Your task to perform on an android device: Open Google Maps and go to "Timeline" Image 0: 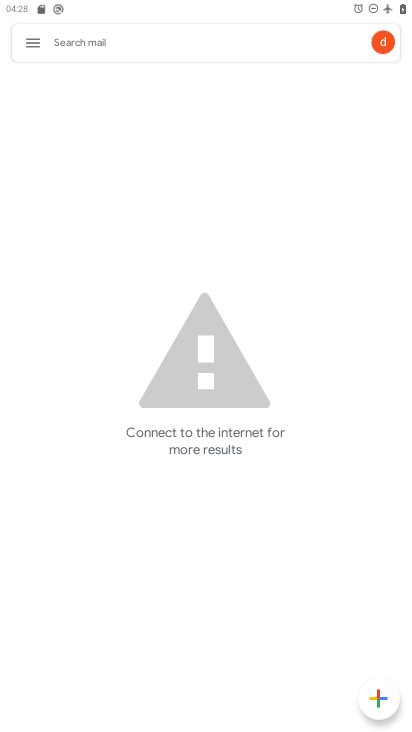
Step 0: press home button
Your task to perform on an android device: Open Google Maps and go to "Timeline" Image 1: 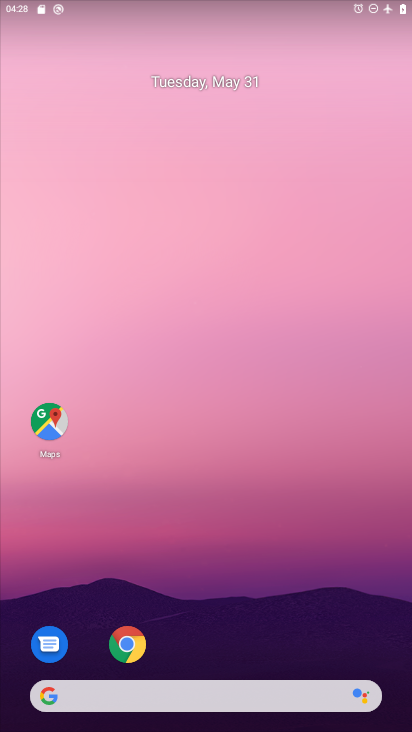
Step 1: click (46, 413)
Your task to perform on an android device: Open Google Maps and go to "Timeline" Image 2: 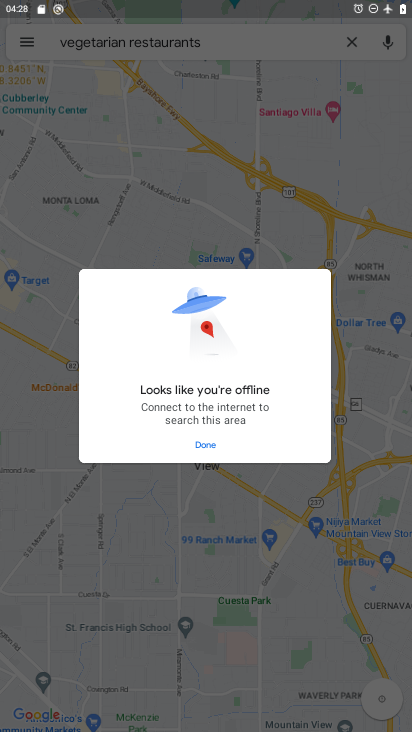
Step 2: click (209, 433)
Your task to perform on an android device: Open Google Maps and go to "Timeline" Image 3: 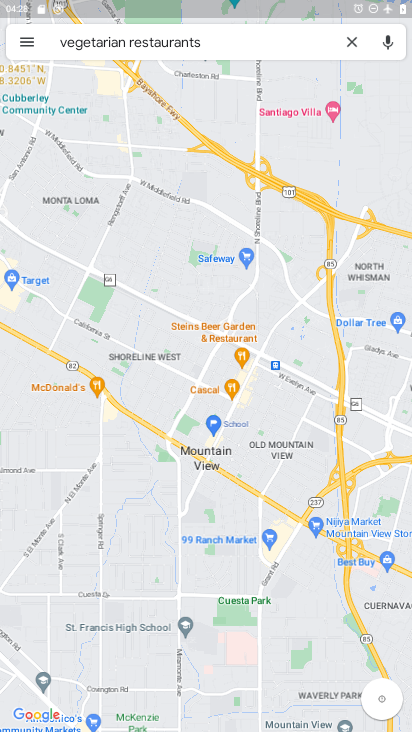
Step 3: click (20, 46)
Your task to perform on an android device: Open Google Maps and go to "Timeline" Image 4: 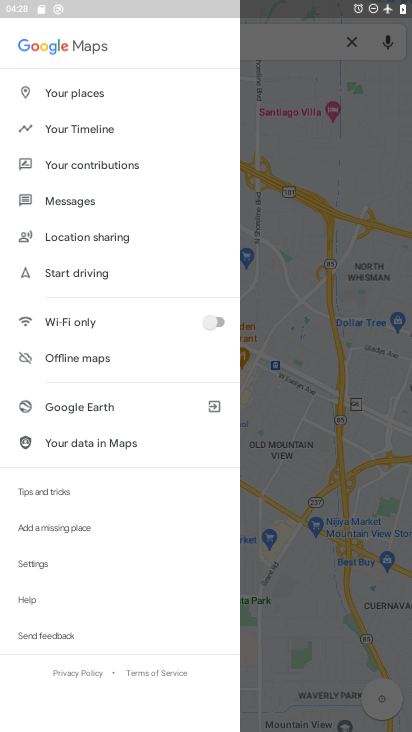
Step 4: click (101, 130)
Your task to perform on an android device: Open Google Maps and go to "Timeline" Image 5: 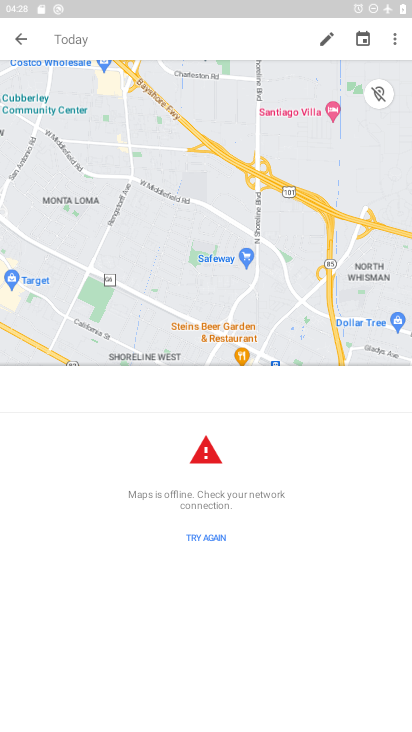
Step 5: task complete